Your task to perform on an android device: move an email to a new category in the gmail app Image 0: 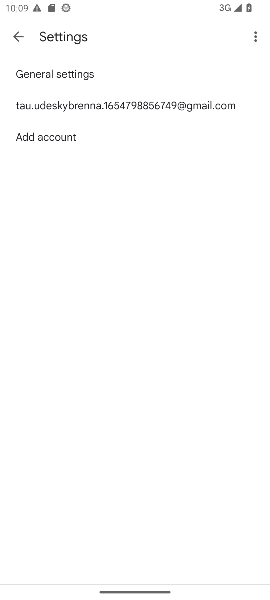
Step 0: press home button
Your task to perform on an android device: move an email to a new category in the gmail app Image 1: 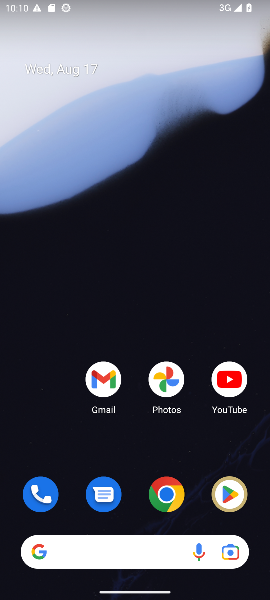
Step 1: click (104, 378)
Your task to perform on an android device: move an email to a new category in the gmail app Image 2: 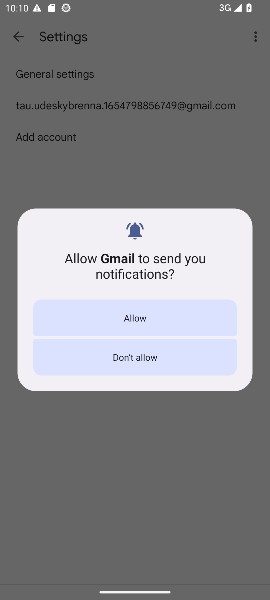
Step 2: click (146, 310)
Your task to perform on an android device: move an email to a new category in the gmail app Image 3: 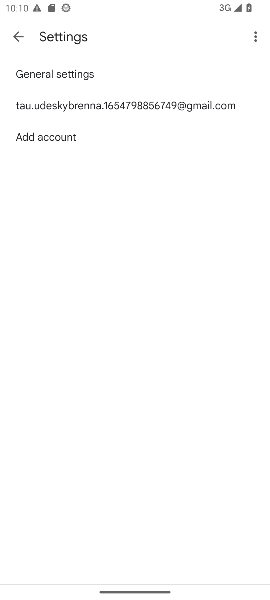
Step 3: click (16, 35)
Your task to perform on an android device: move an email to a new category in the gmail app Image 4: 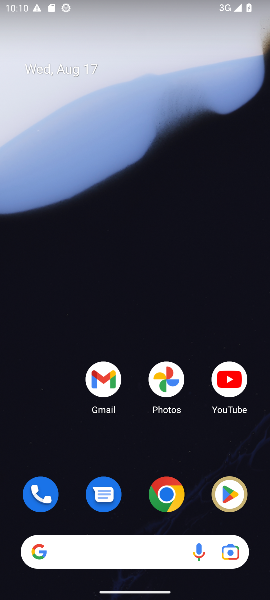
Step 4: click (100, 376)
Your task to perform on an android device: move an email to a new category in the gmail app Image 5: 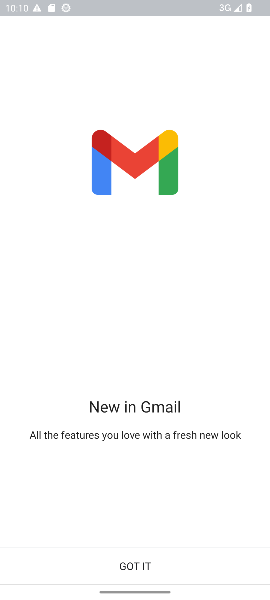
Step 5: click (144, 566)
Your task to perform on an android device: move an email to a new category in the gmail app Image 6: 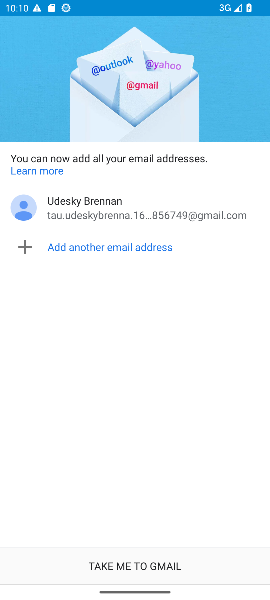
Step 6: click (144, 566)
Your task to perform on an android device: move an email to a new category in the gmail app Image 7: 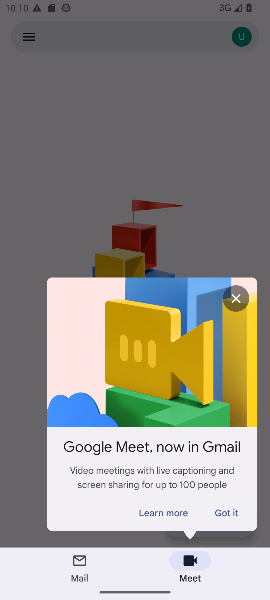
Step 7: click (234, 297)
Your task to perform on an android device: move an email to a new category in the gmail app Image 8: 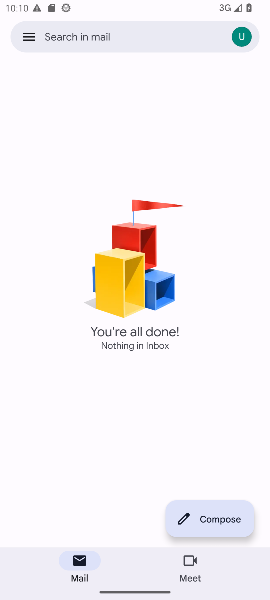
Step 8: task complete